Your task to perform on an android device: Go to location settings Image 0: 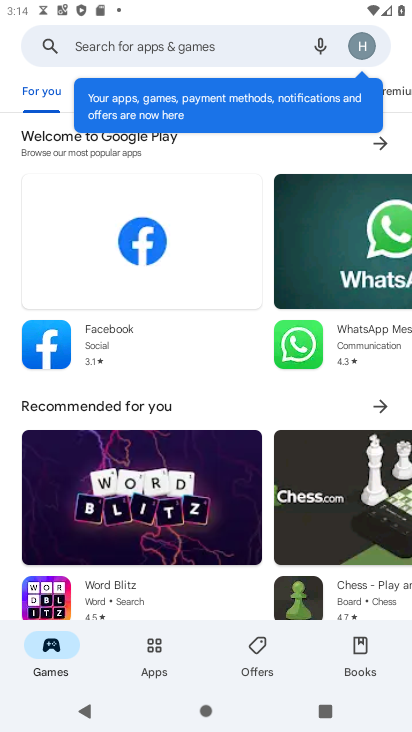
Step 0: press home button
Your task to perform on an android device: Go to location settings Image 1: 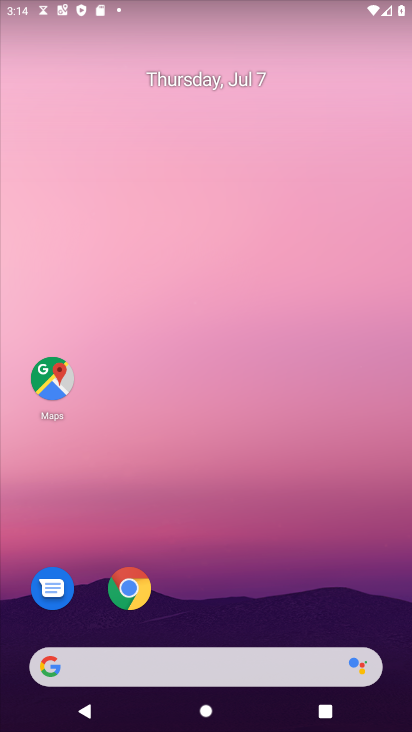
Step 1: drag from (273, 621) to (223, 122)
Your task to perform on an android device: Go to location settings Image 2: 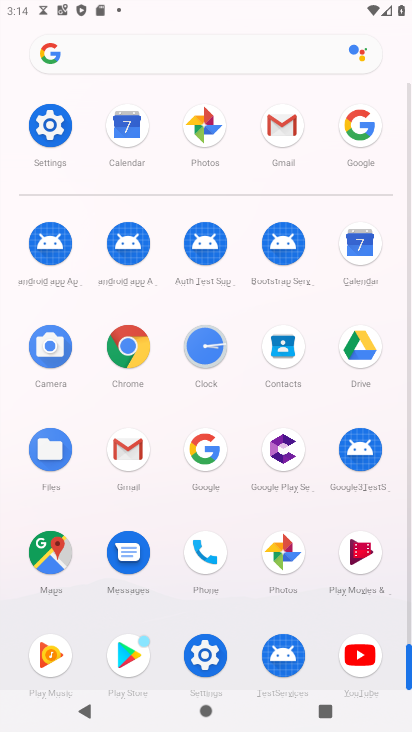
Step 2: click (50, 125)
Your task to perform on an android device: Go to location settings Image 3: 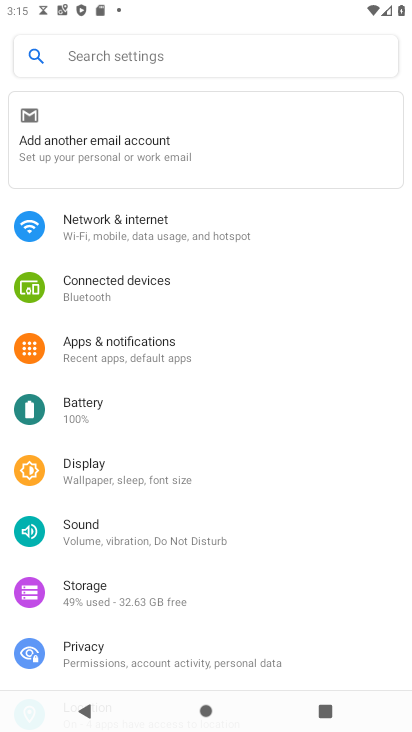
Step 3: drag from (123, 569) to (160, 461)
Your task to perform on an android device: Go to location settings Image 4: 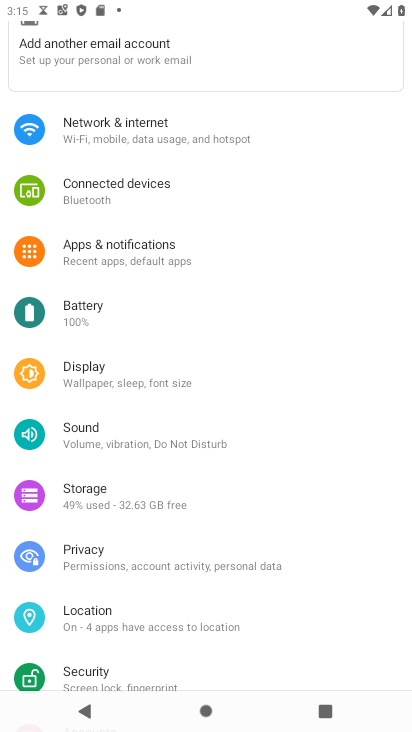
Step 4: click (62, 607)
Your task to perform on an android device: Go to location settings Image 5: 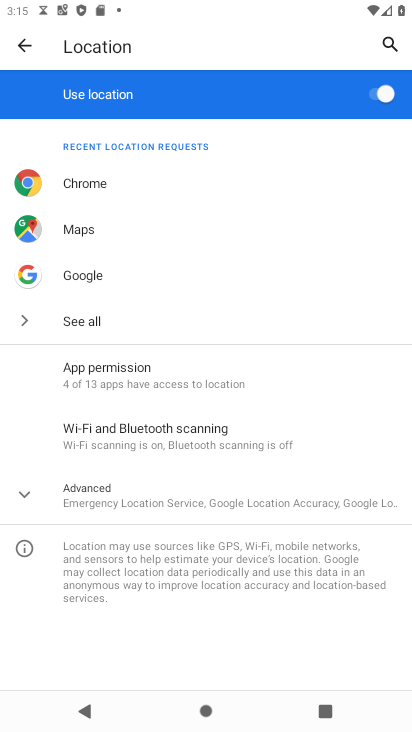
Step 5: task complete